Your task to perform on an android device: open app "NewsBreak: Local News & Alerts" Image 0: 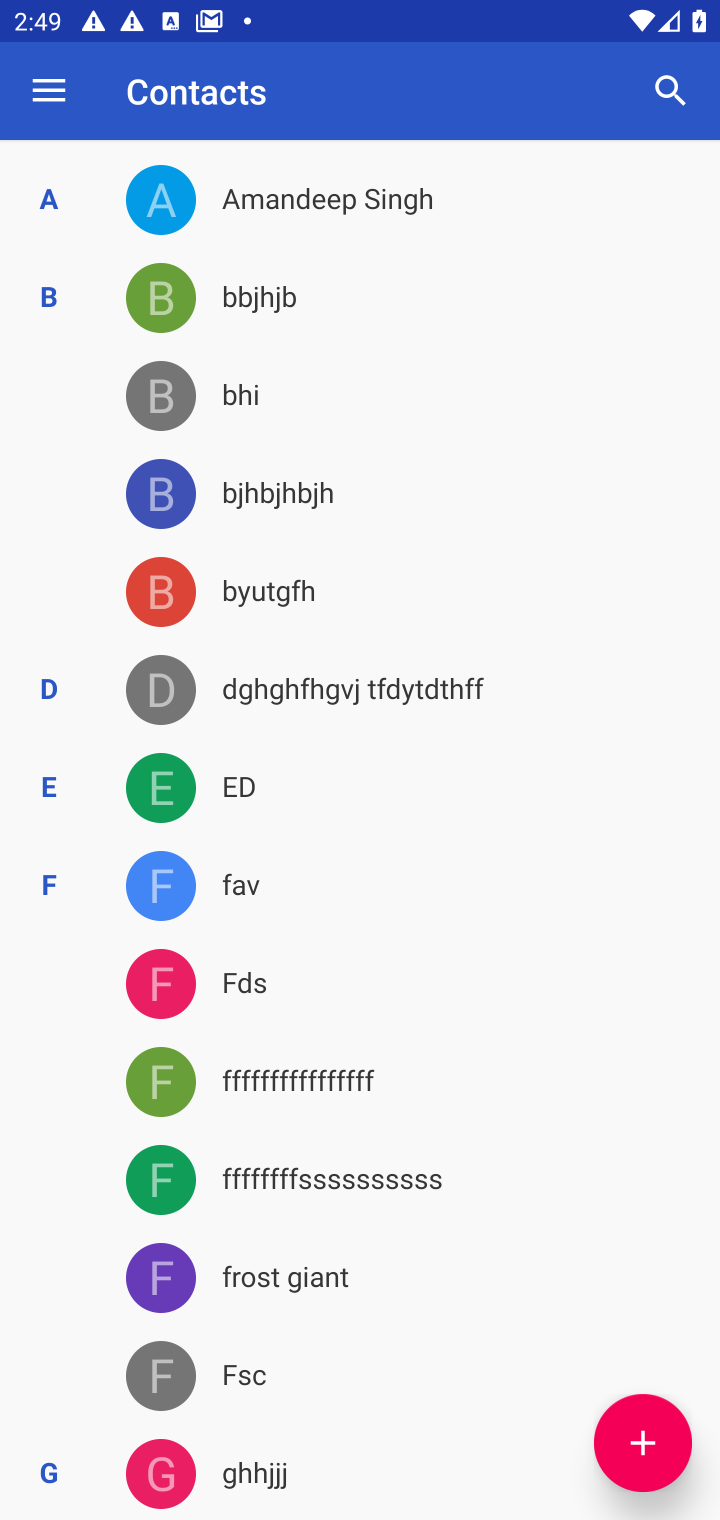
Step 0: press home button
Your task to perform on an android device: open app "NewsBreak: Local News & Alerts" Image 1: 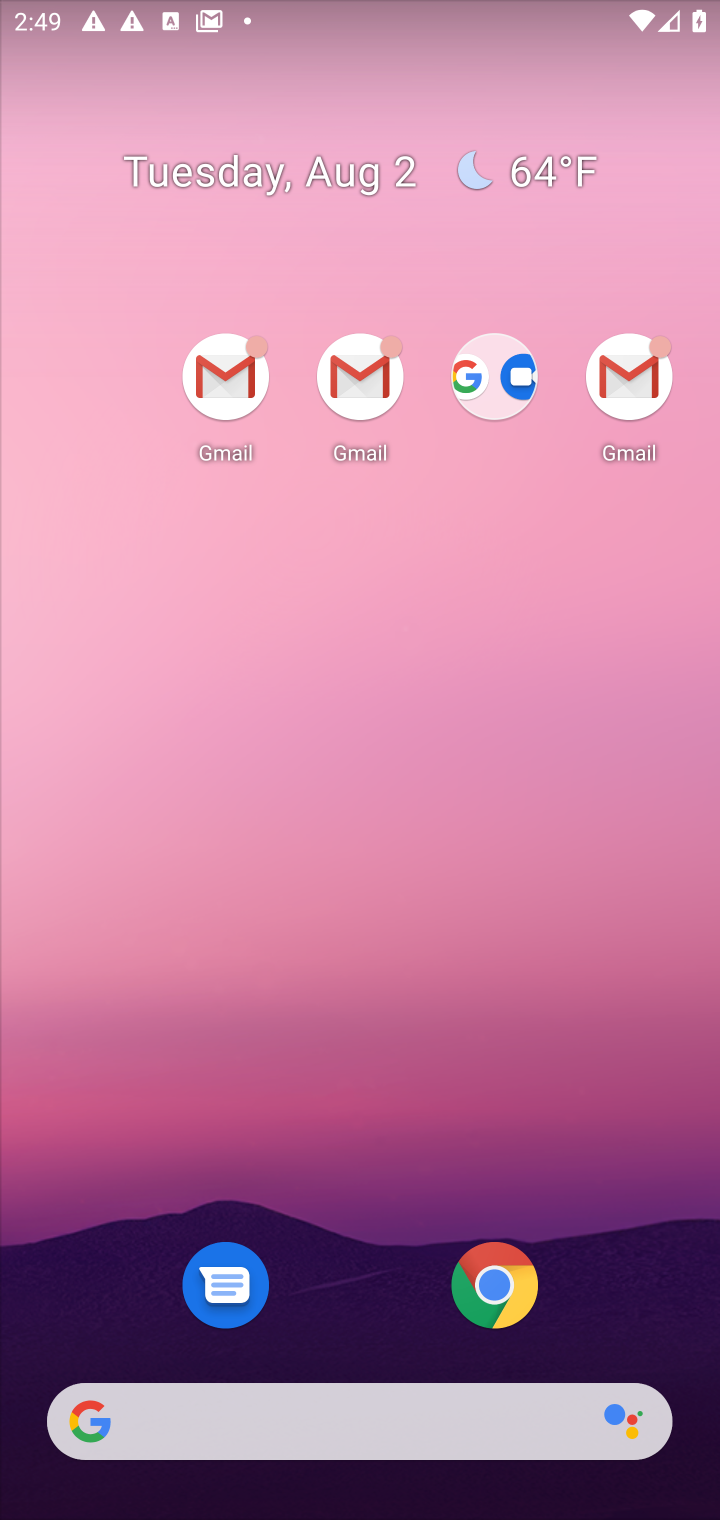
Step 1: drag from (349, 909) to (407, 184)
Your task to perform on an android device: open app "NewsBreak: Local News & Alerts" Image 2: 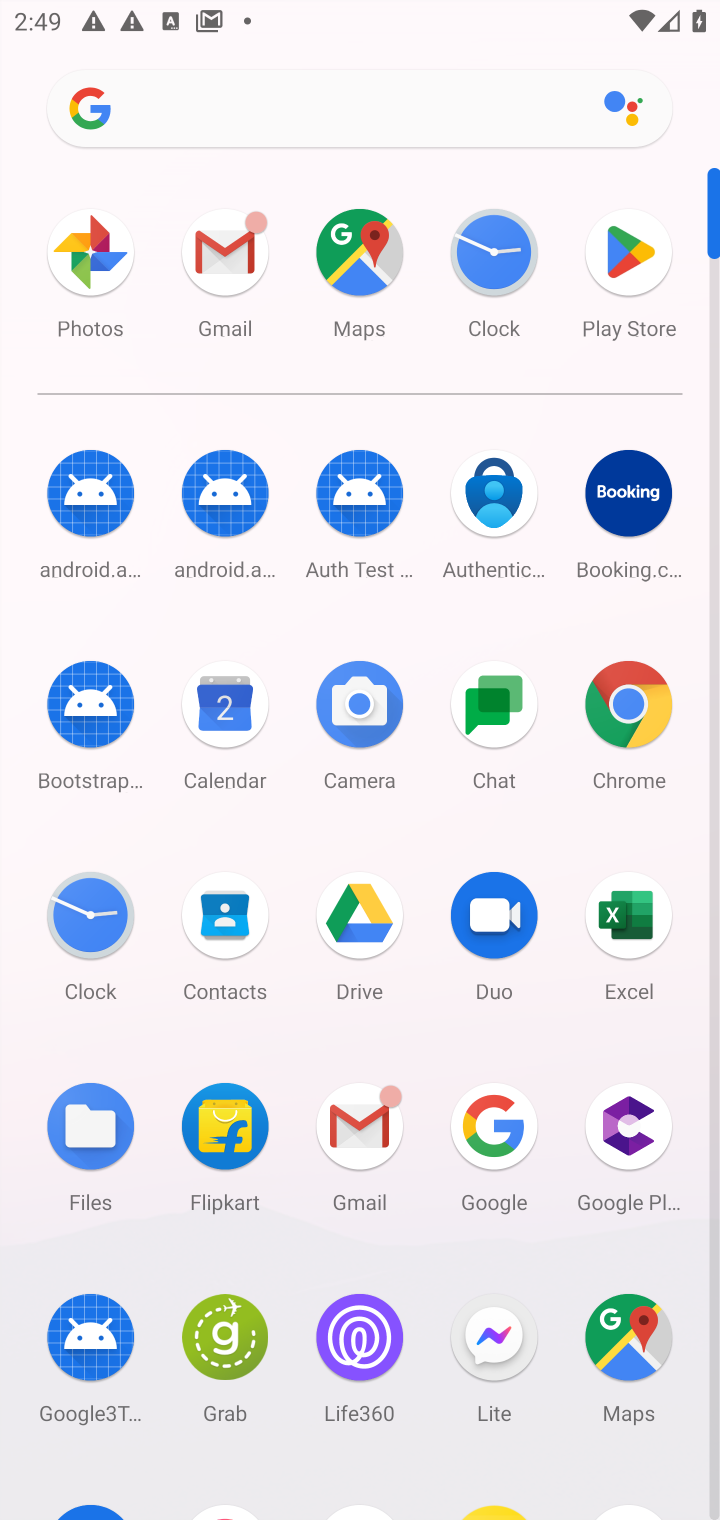
Step 2: drag from (422, 1226) to (427, 439)
Your task to perform on an android device: open app "NewsBreak: Local News & Alerts" Image 3: 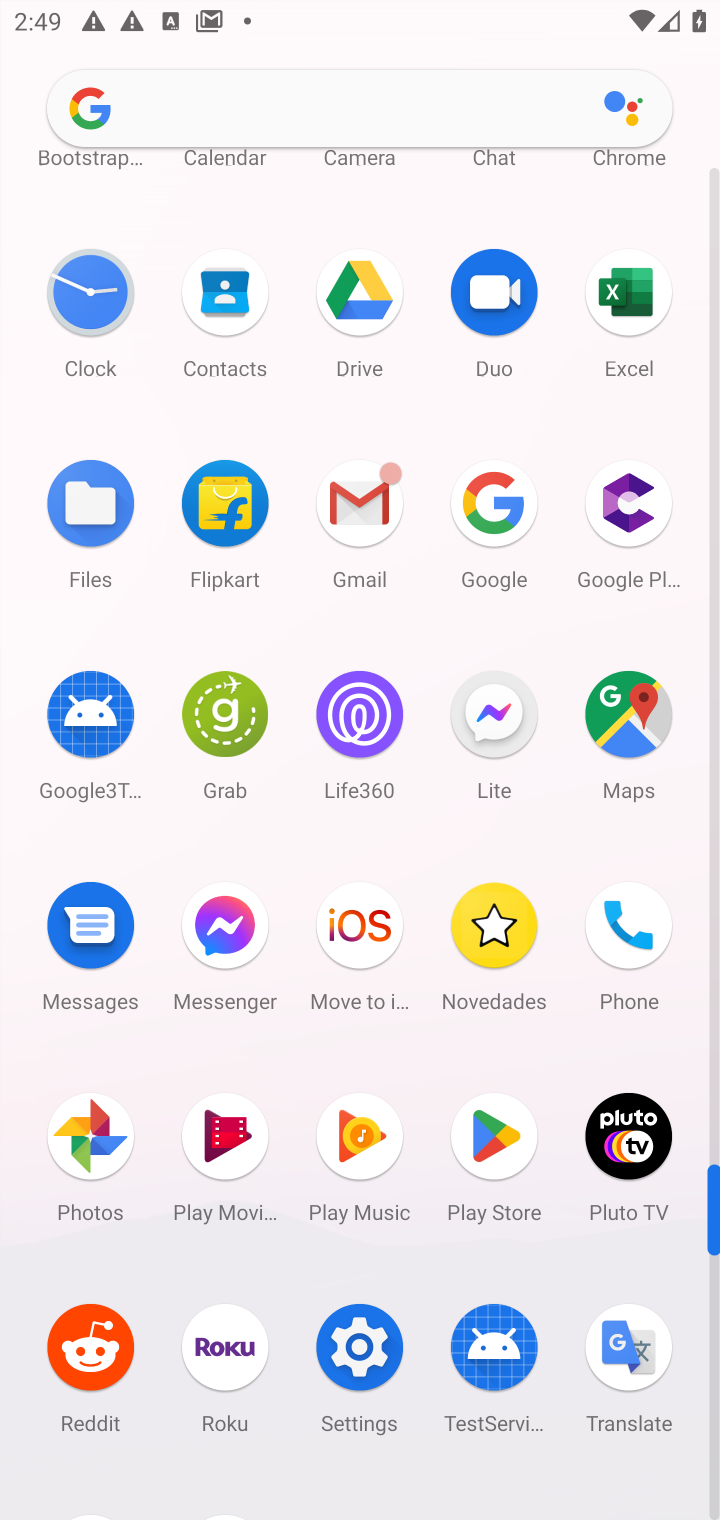
Step 3: click (506, 1130)
Your task to perform on an android device: open app "NewsBreak: Local News & Alerts" Image 4: 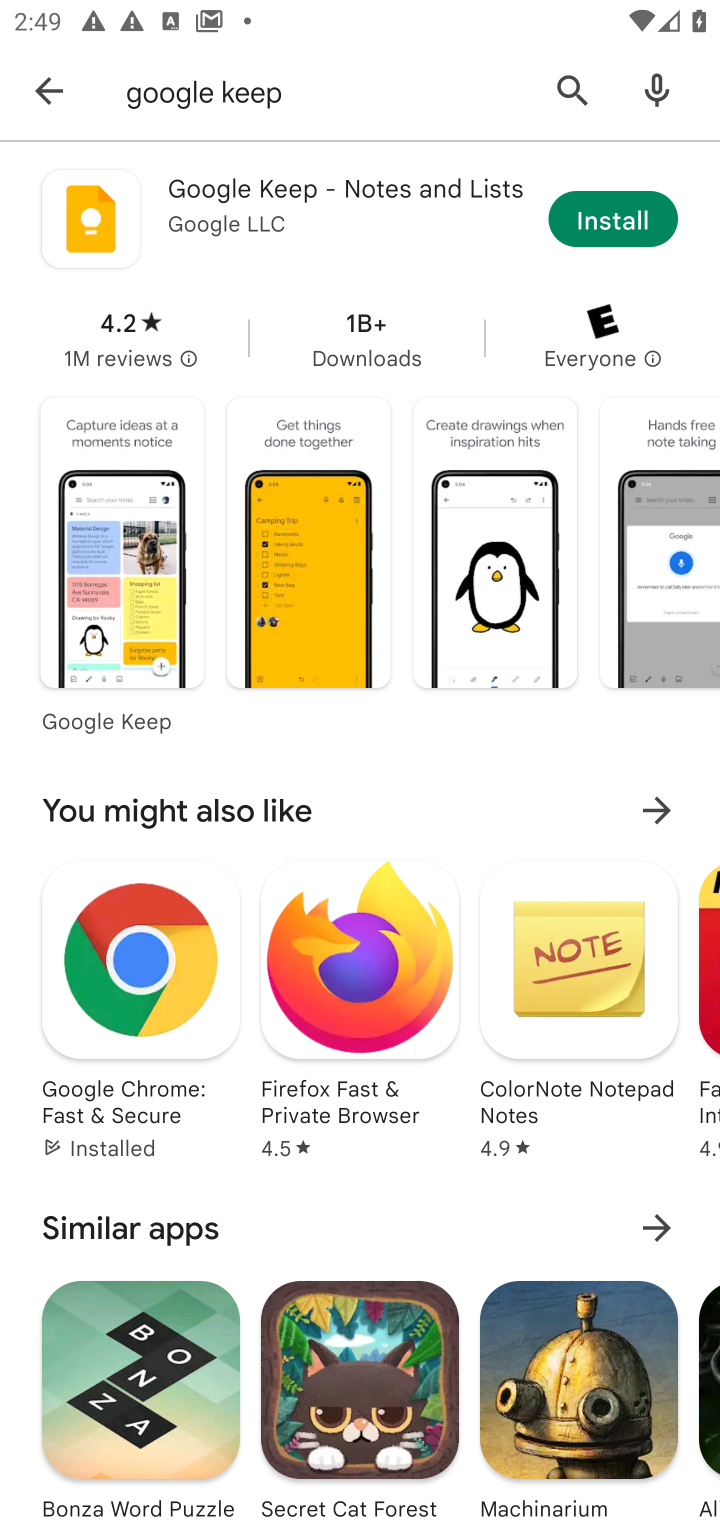
Step 4: click (369, 110)
Your task to perform on an android device: open app "NewsBreak: Local News & Alerts" Image 5: 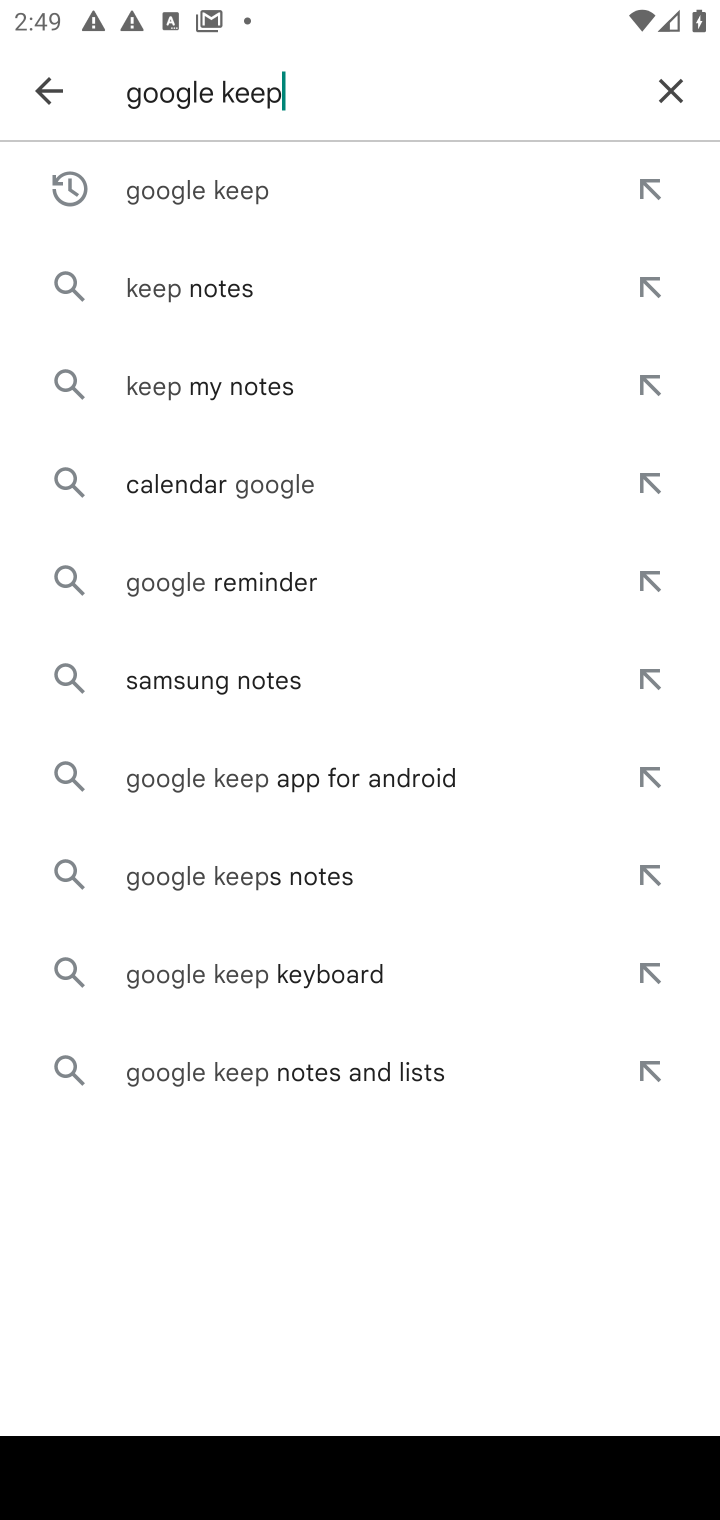
Step 5: click (670, 85)
Your task to perform on an android device: open app "NewsBreak: Local News & Alerts" Image 6: 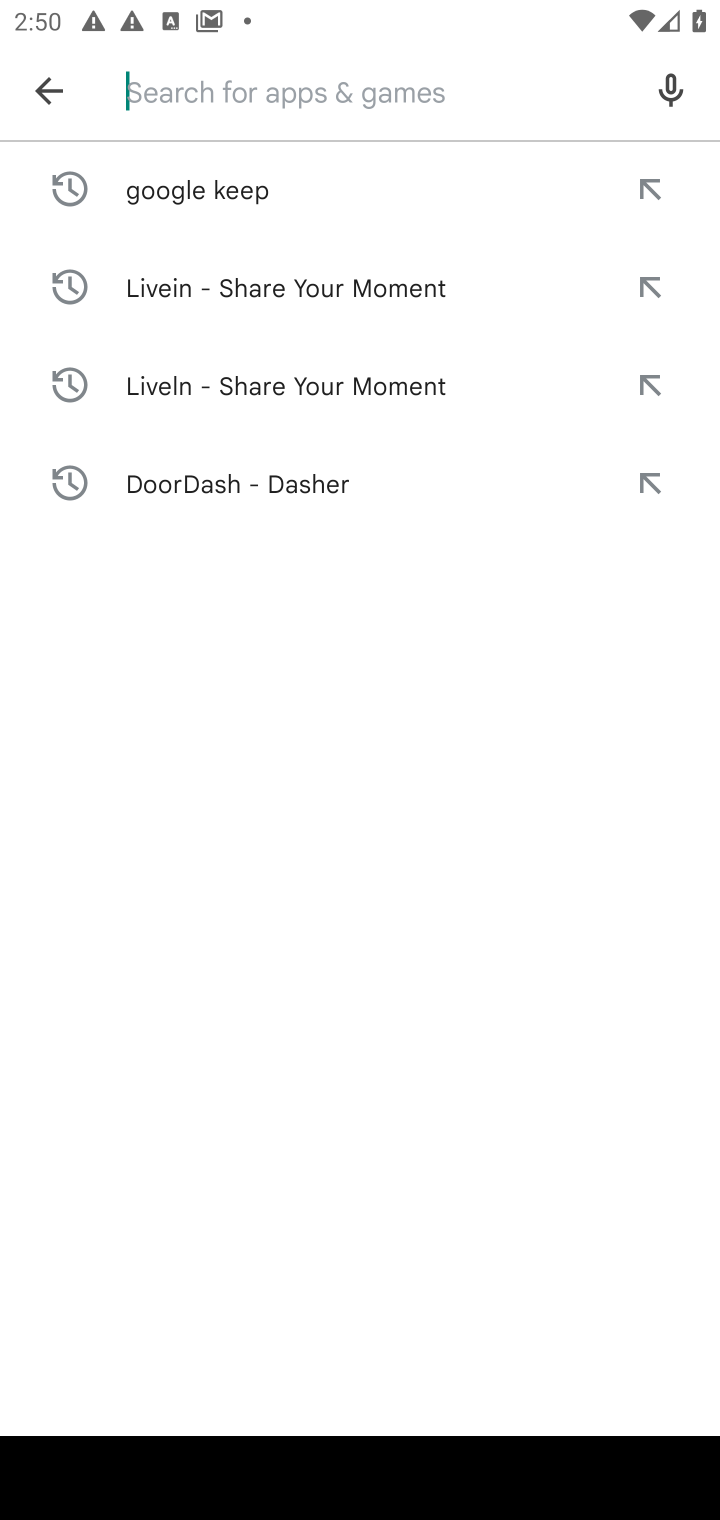
Step 6: type "NewsBreak: Local News & Alerts"
Your task to perform on an android device: open app "NewsBreak: Local News & Alerts" Image 7: 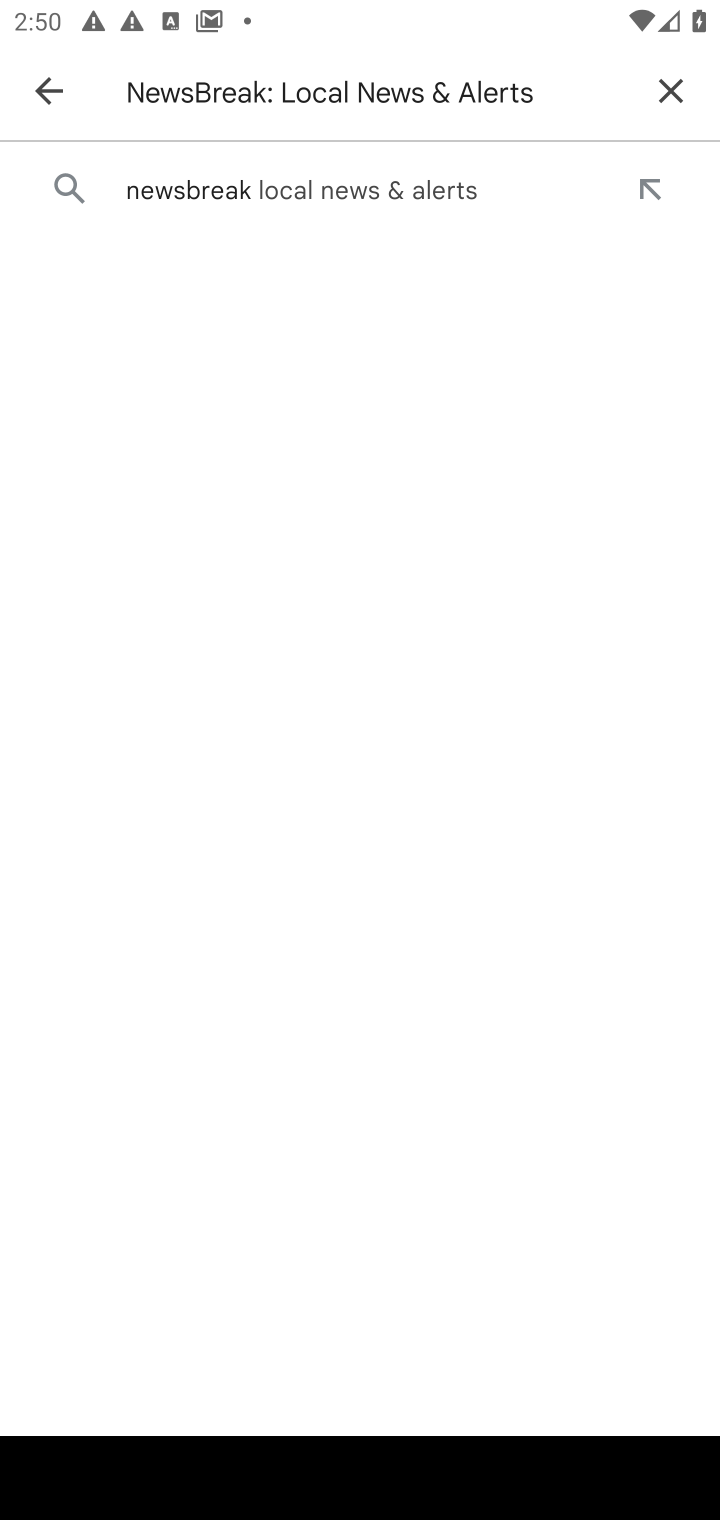
Step 7: press enter
Your task to perform on an android device: open app "NewsBreak: Local News & Alerts" Image 8: 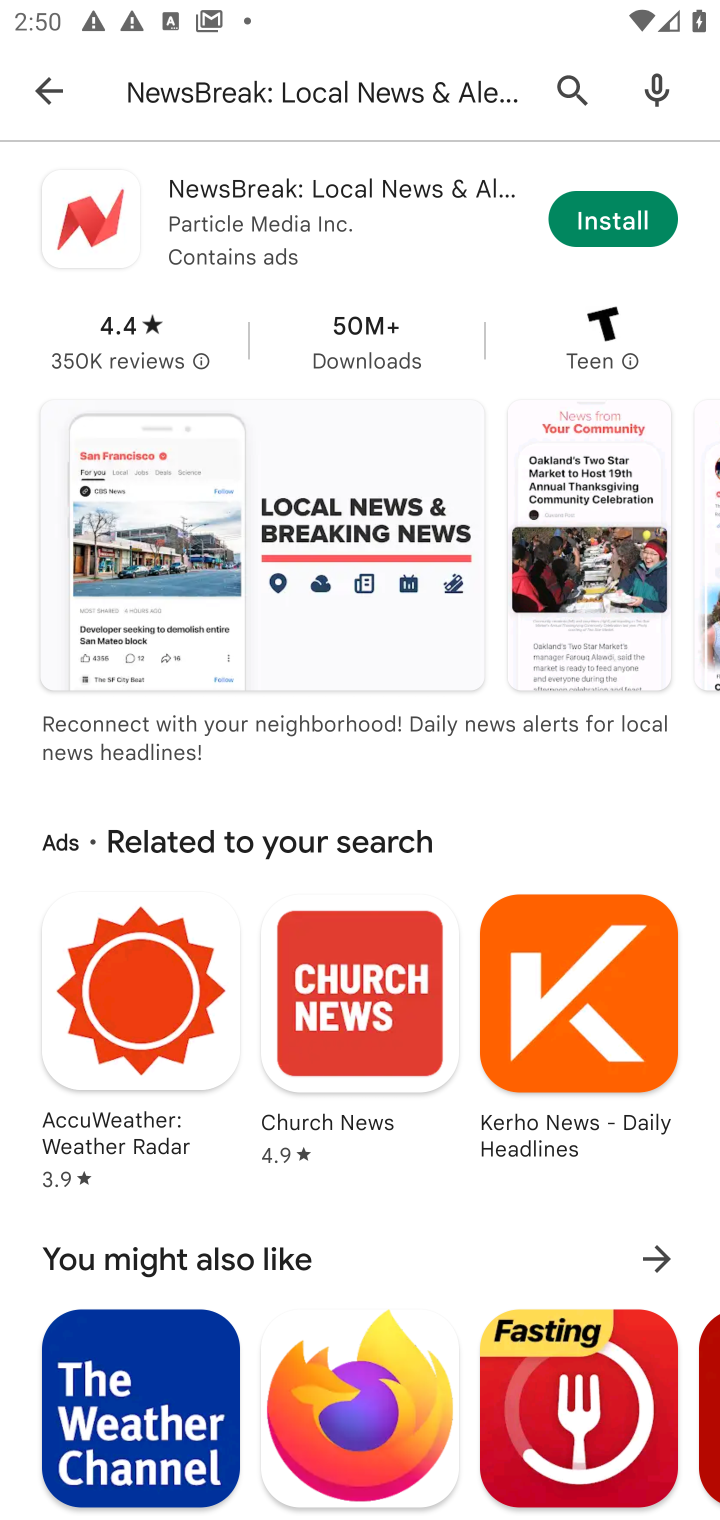
Step 8: task complete